Your task to perform on an android device: open app "YouTube Kids" (install if not already installed) and go to login screen Image 0: 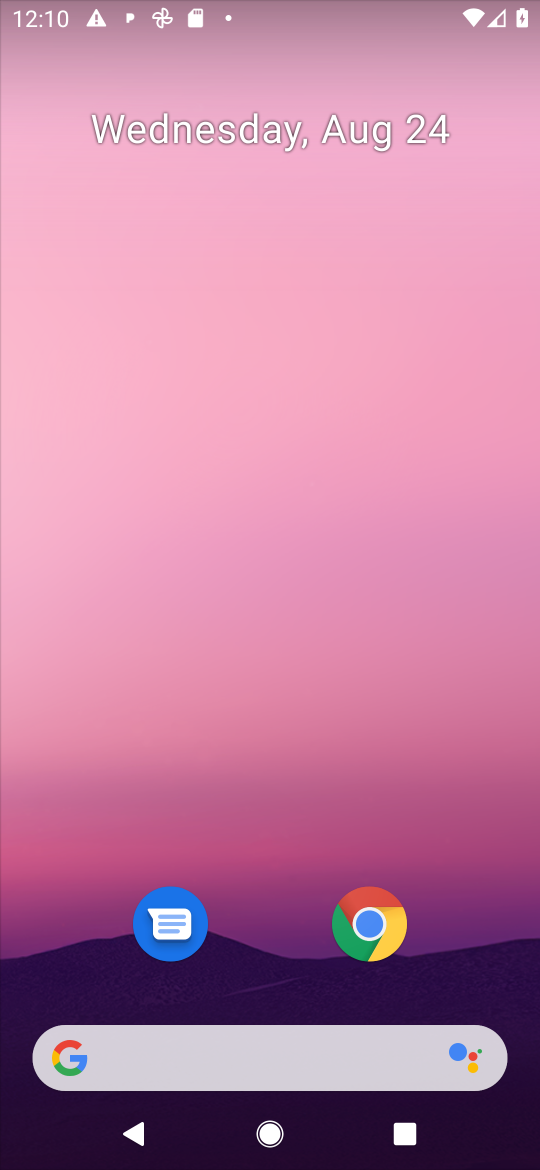
Step 0: press home button
Your task to perform on an android device: open app "YouTube Kids" (install if not already installed) and go to login screen Image 1: 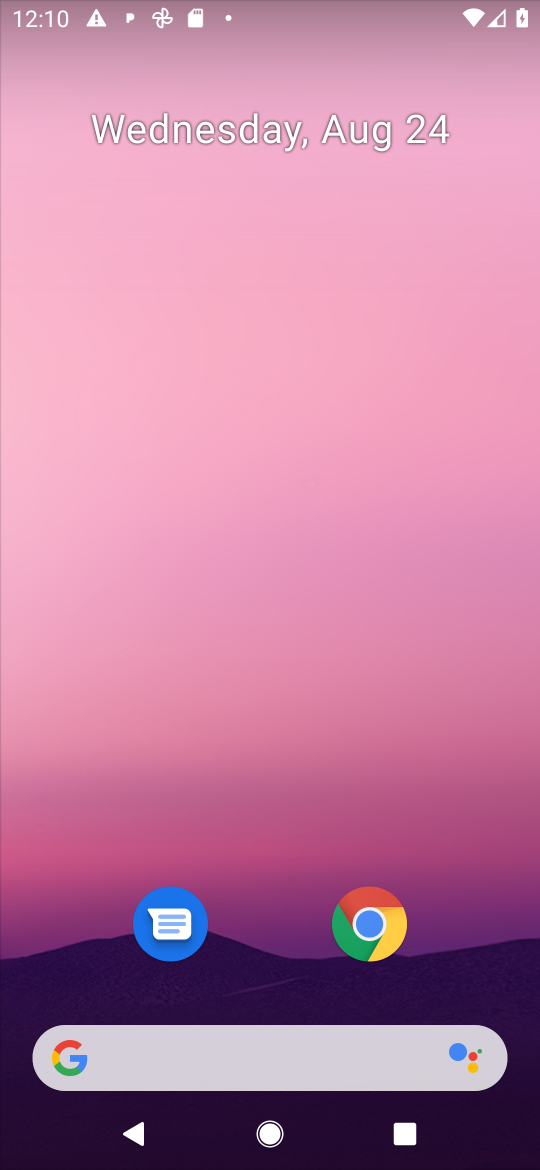
Step 1: drag from (460, 970) to (486, 185)
Your task to perform on an android device: open app "YouTube Kids" (install if not already installed) and go to login screen Image 2: 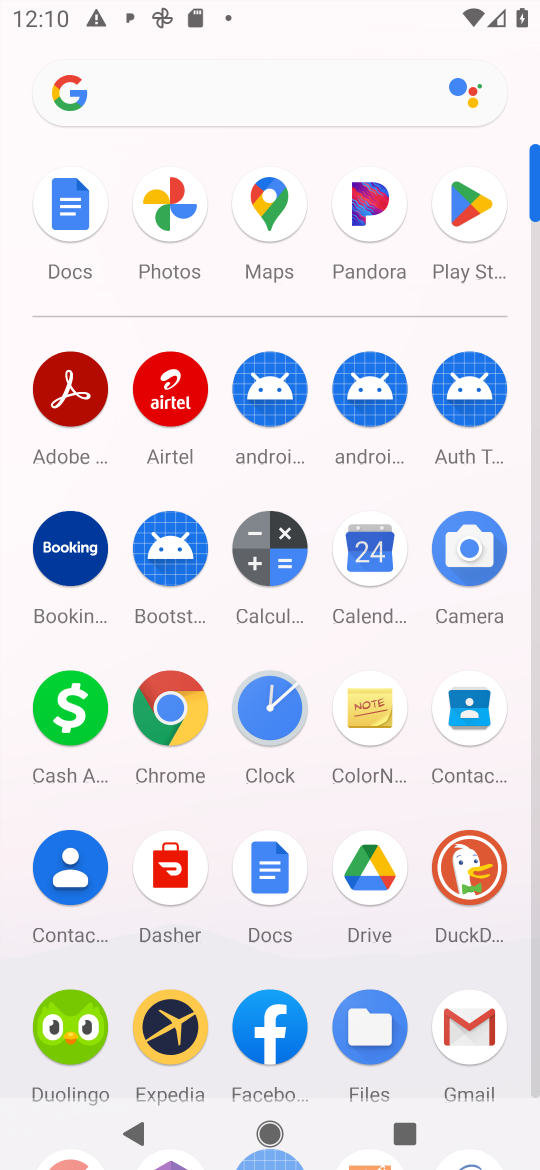
Step 2: click (471, 208)
Your task to perform on an android device: open app "YouTube Kids" (install if not already installed) and go to login screen Image 3: 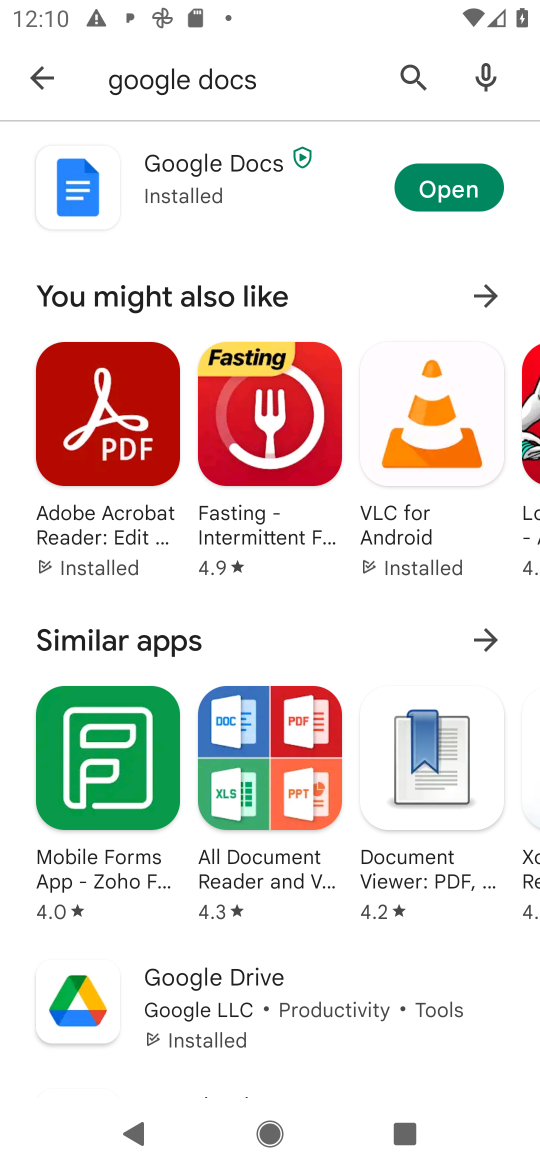
Step 3: press back button
Your task to perform on an android device: open app "YouTube Kids" (install if not already installed) and go to login screen Image 4: 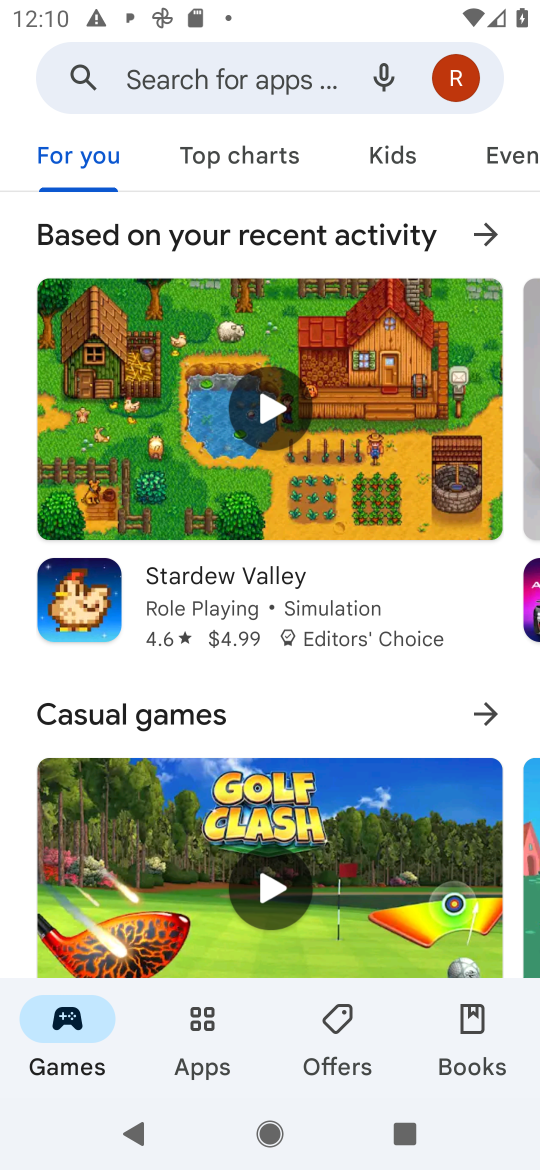
Step 4: click (244, 83)
Your task to perform on an android device: open app "YouTube Kids" (install if not already installed) and go to login screen Image 5: 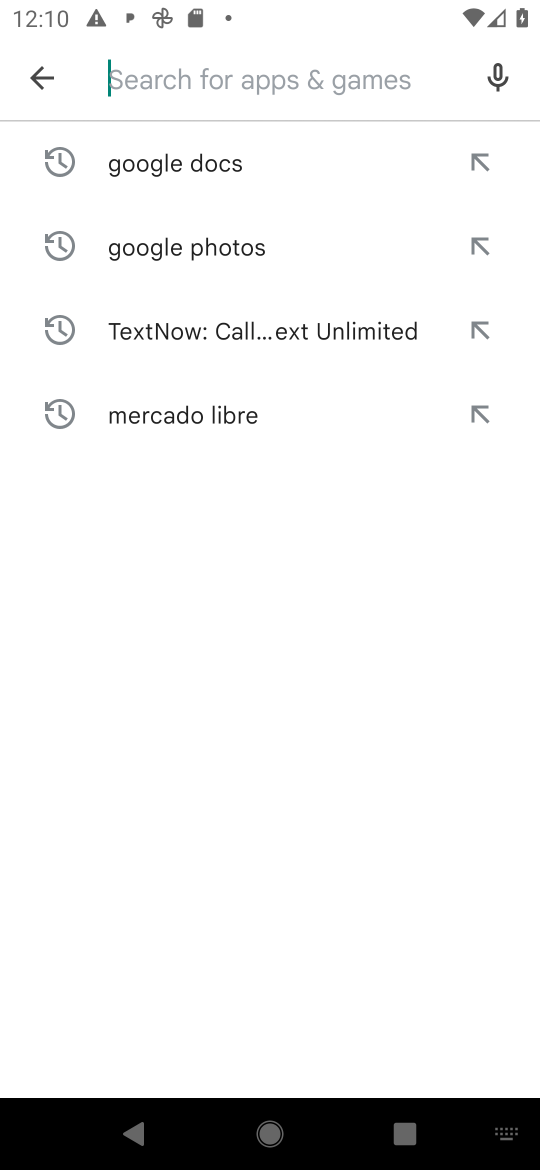
Step 5: press enter
Your task to perform on an android device: open app "YouTube Kids" (install if not already installed) and go to login screen Image 6: 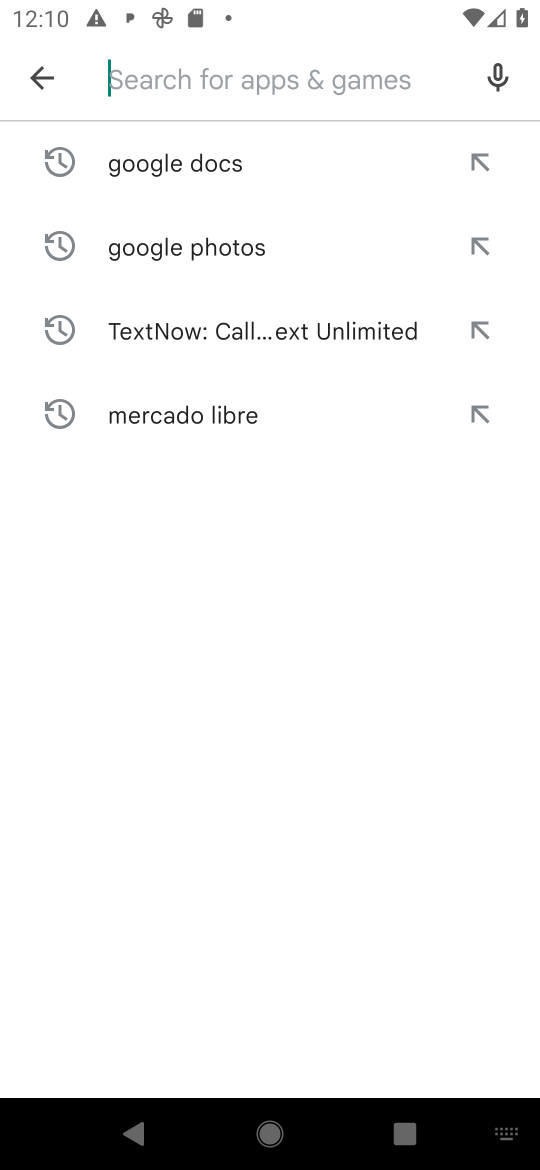
Step 6: type "YouTube Kids"
Your task to perform on an android device: open app "YouTube Kids" (install if not already installed) and go to login screen Image 7: 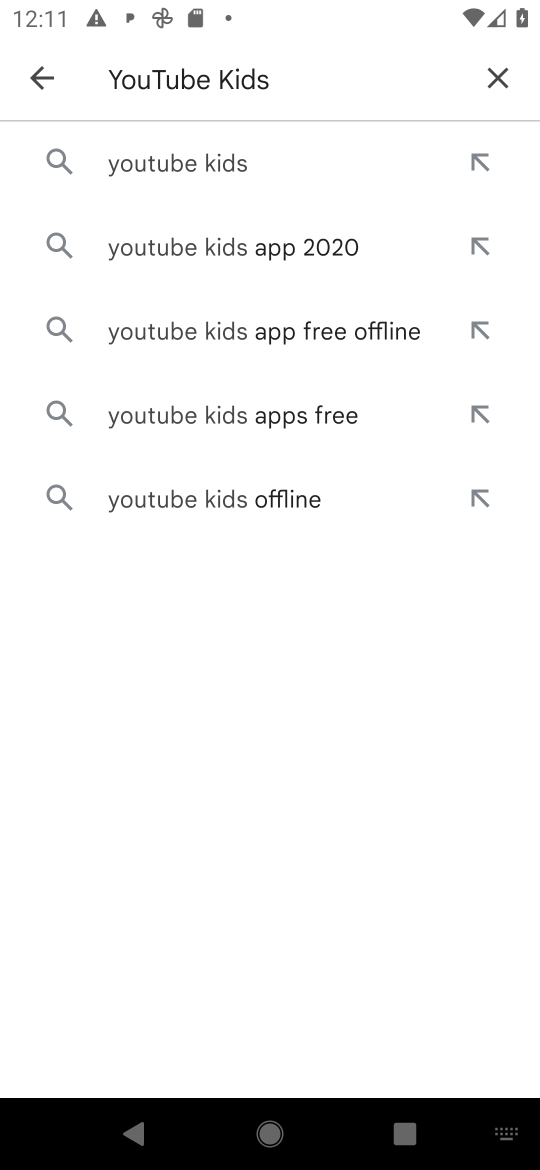
Step 7: click (208, 161)
Your task to perform on an android device: open app "YouTube Kids" (install if not already installed) and go to login screen Image 8: 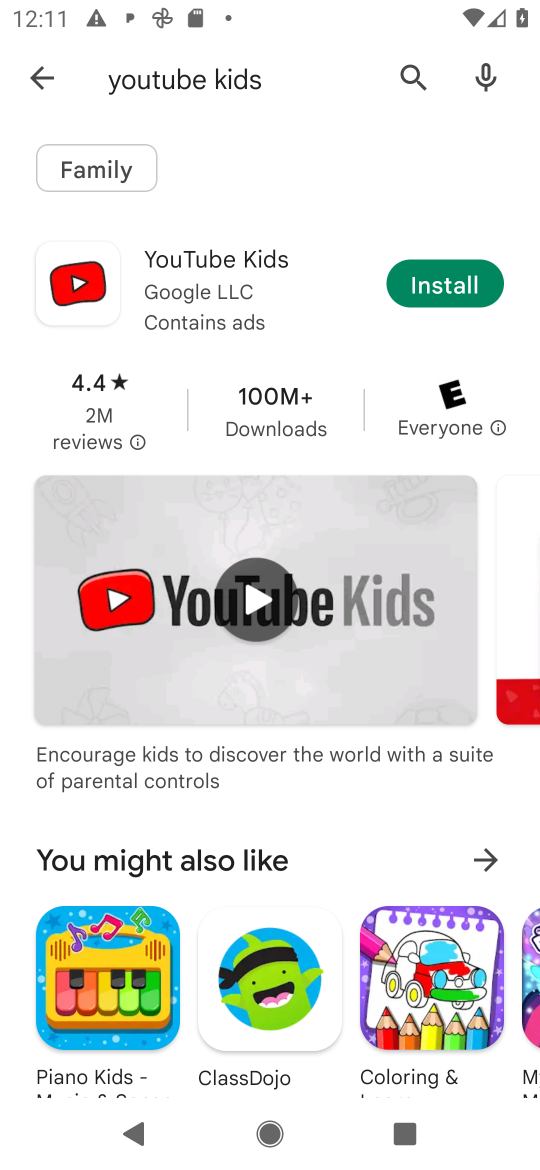
Step 8: click (448, 279)
Your task to perform on an android device: open app "YouTube Kids" (install if not already installed) and go to login screen Image 9: 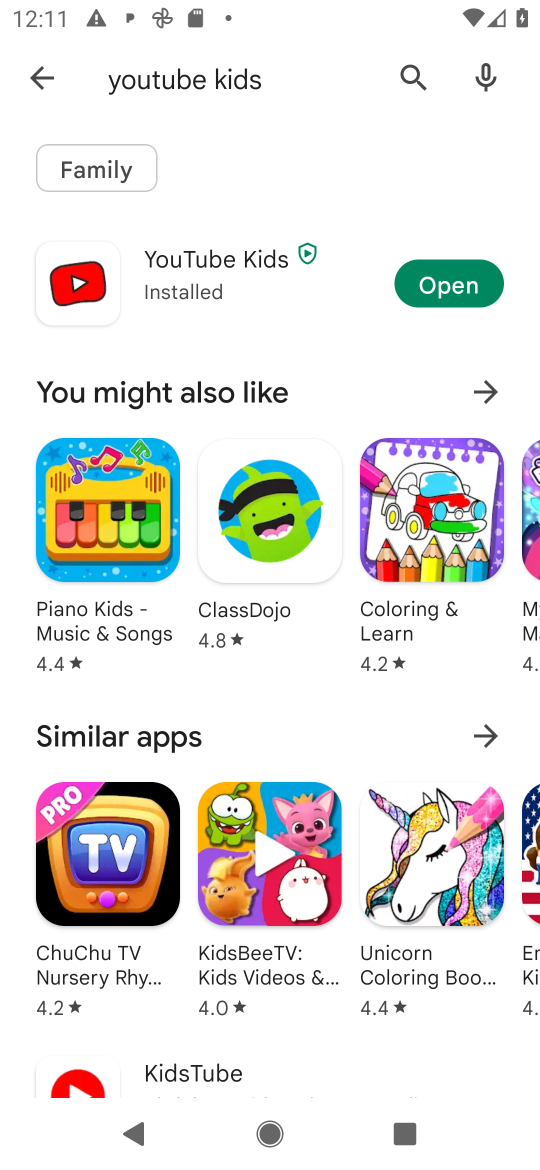
Step 9: click (447, 290)
Your task to perform on an android device: open app "YouTube Kids" (install if not already installed) and go to login screen Image 10: 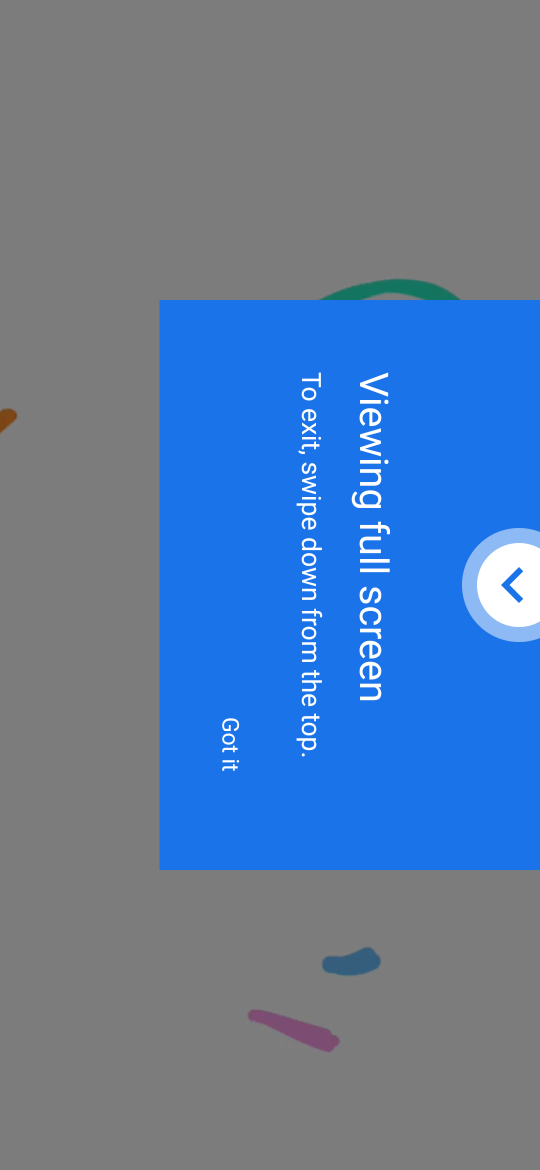
Step 10: click (446, 277)
Your task to perform on an android device: open app "YouTube Kids" (install if not already installed) and go to login screen Image 11: 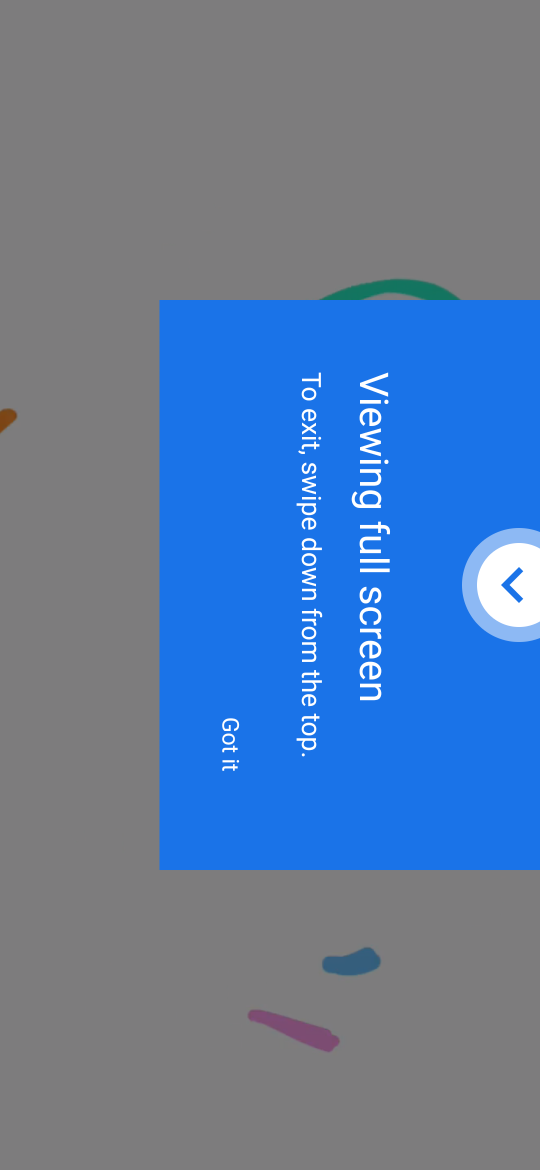
Step 11: click (222, 760)
Your task to perform on an android device: open app "YouTube Kids" (install if not already installed) and go to login screen Image 12: 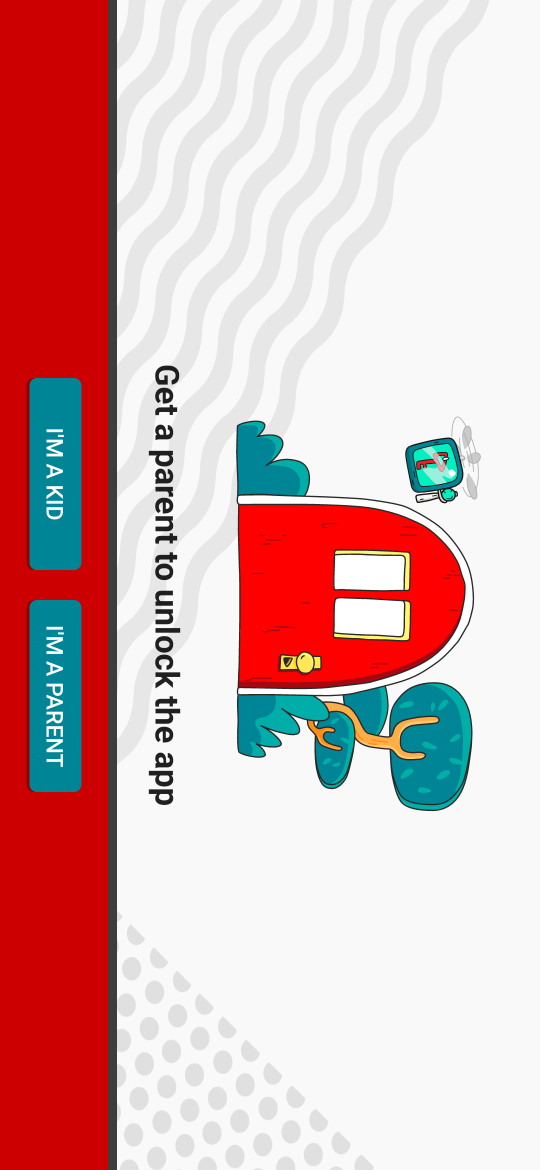
Step 12: task complete